Your task to perform on an android device: Play the last video I watched on Youtube Image 0: 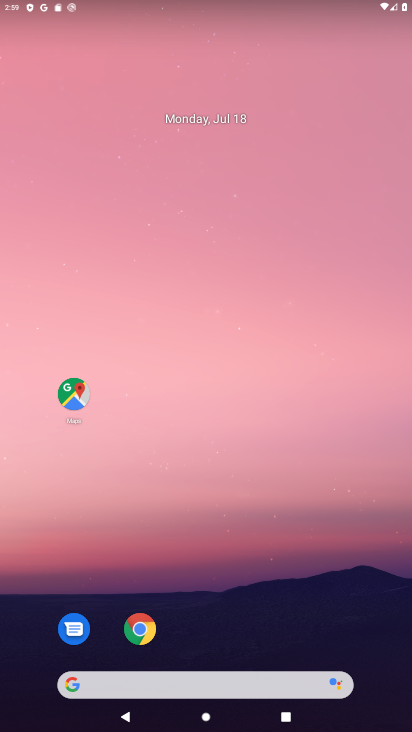
Step 0: drag from (215, 643) to (211, 247)
Your task to perform on an android device: Play the last video I watched on Youtube Image 1: 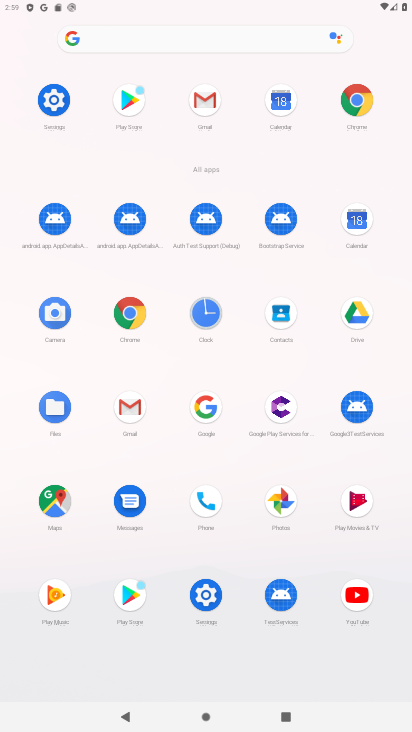
Step 1: click (362, 602)
Your task to perform on an android device: Play the last video I watched on Youtube Image 2: 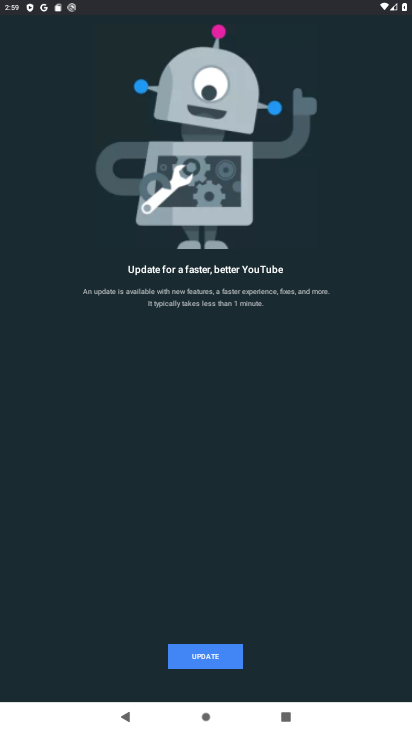
Step 2: click (231, 650)
Your task to perform on an android device: Play the last video I watched on Youtube Image 3: 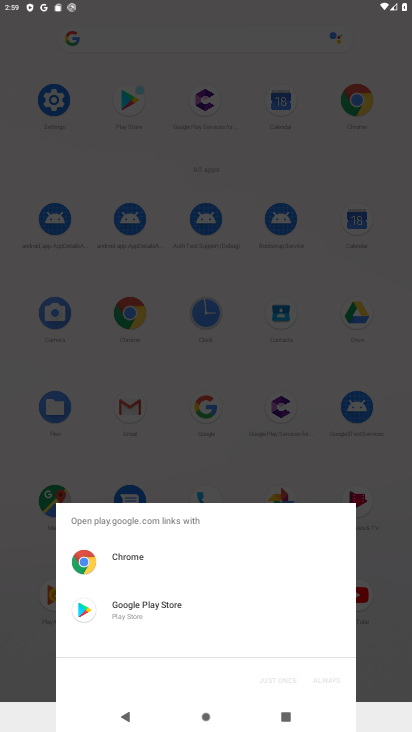
Step 3: click (163, 617)
Your task to perform on an android device: Play the last video I watched on Youtube Image 4: 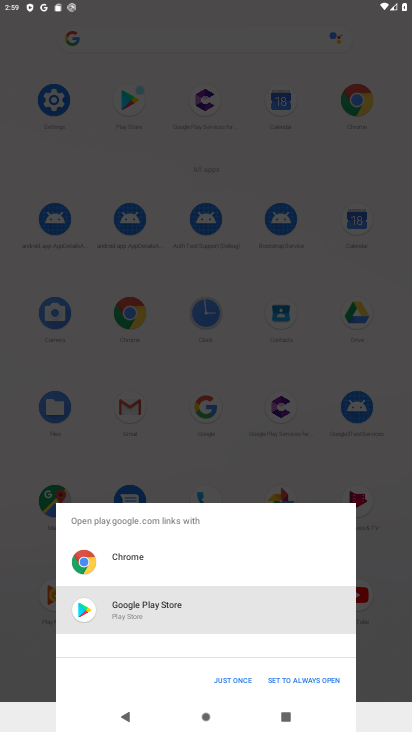
Step 4: click (243, 673)
Your task to perform on an android device: Play the last video I watched on Youtube Image 5: 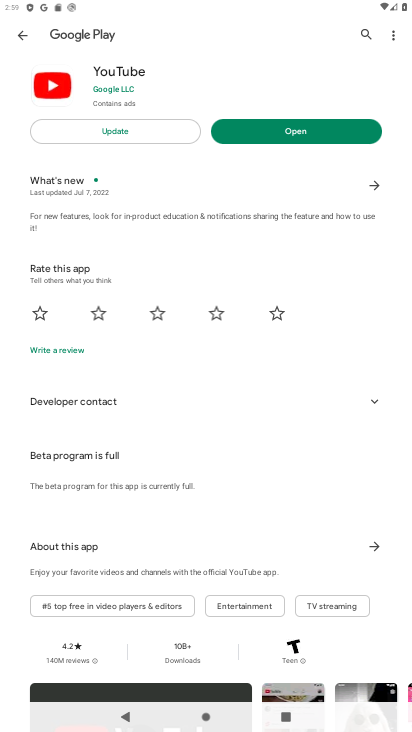
Step 5: click (74, 138)
Your task to perform on an android device: Play the last video I watched on Youtube Image 6: 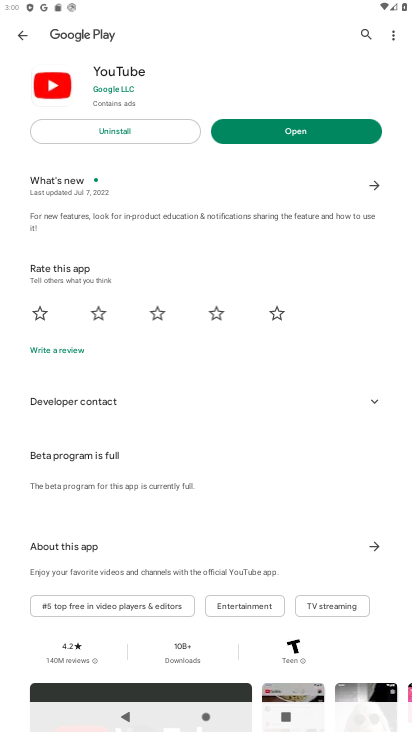
Step 6: click (300, 123)
Your task to perform on an android device: Play the last video I watched on Youtube Image 7: 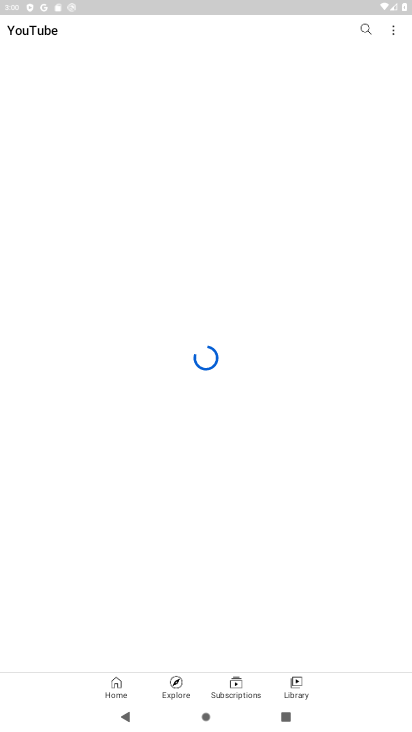
Step 7: click (295, 687)
Your task to perform on an android device: Play the last video I watched on Youtube Image 8: 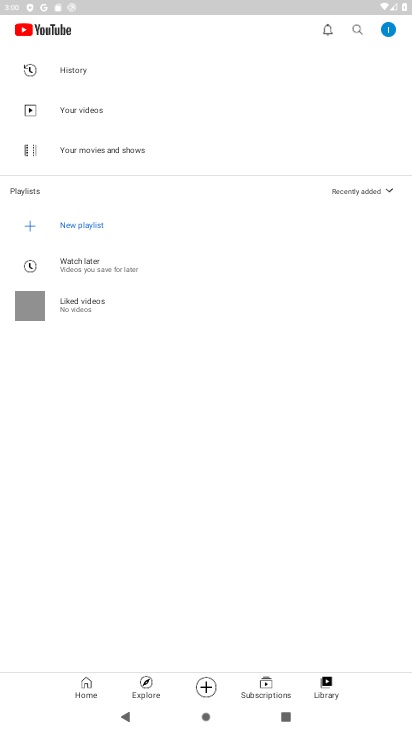
Step 8: click (78, 50)
Your task to perform on an android device: Play the last video I watched on Youtube Image 9: 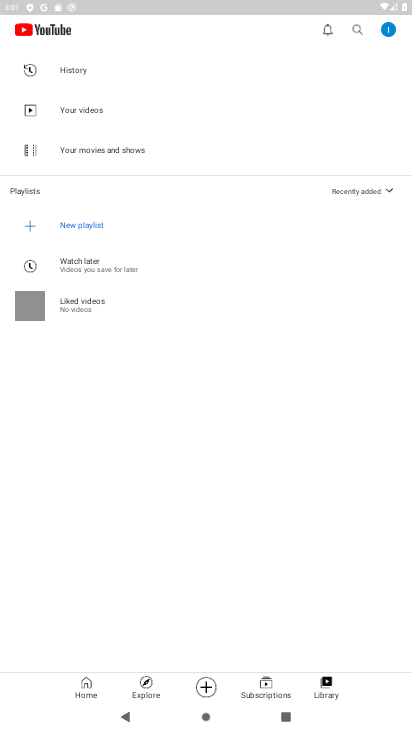
Step 9: click (76, 64)
Your task to perform on an android device: Play the last video I watched on Youtube Image 10: 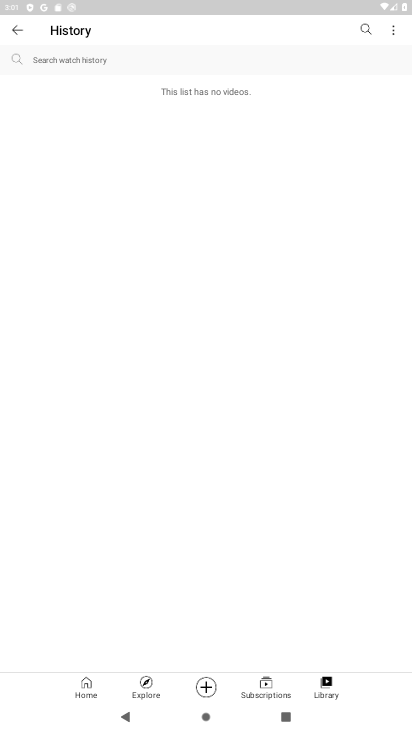
Step 10: task complete